Your task to perform on an android device: Go to notification settings Image 0: 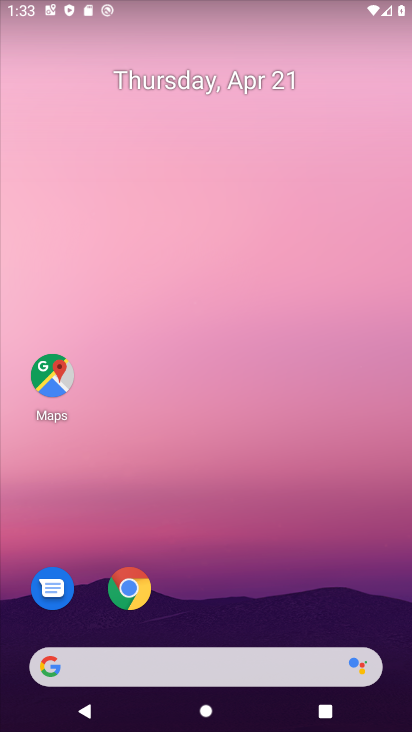
Step 0: drag from (274, 607) to (250, 112)
Your task to perform on an android device: Go to notification settings Image 1: 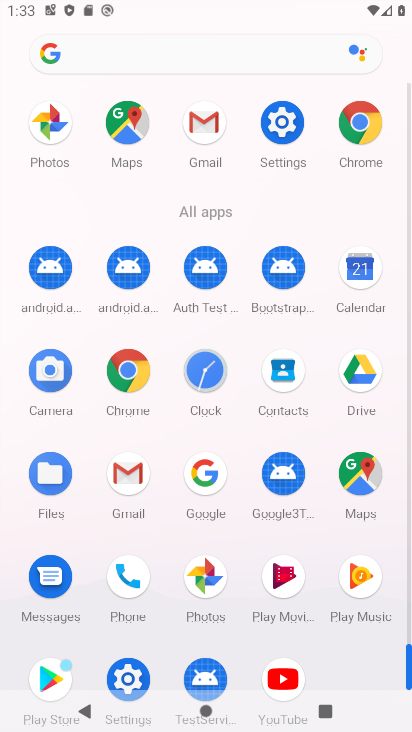
Step 1: click (297, 145)
Your task to perform on an android device: Go to notification settings Image 2: 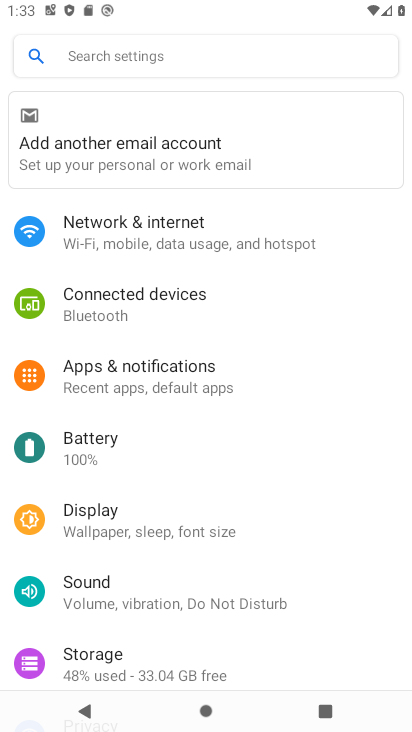
Step 2: click (199, 388)
Your task to perform on an android device: Go to notification settings Image 3: 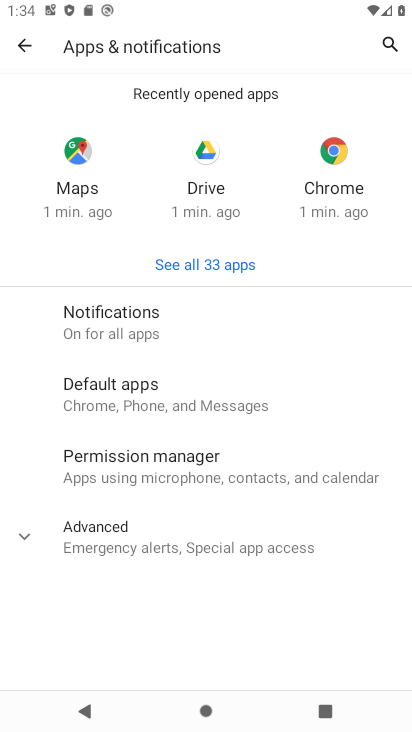
Step 3: click (181, 340)
Your task to perform on an android device: Go to notification settings Image 4: 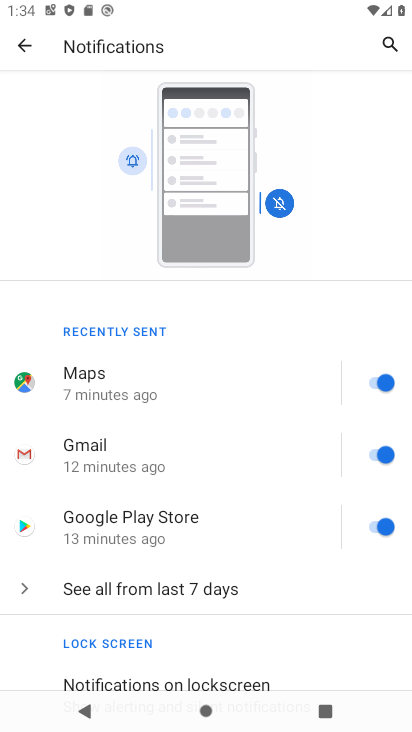
Step 4: task complete